Your task to perform on an android device: open a new tab in the chrome app Image 0: 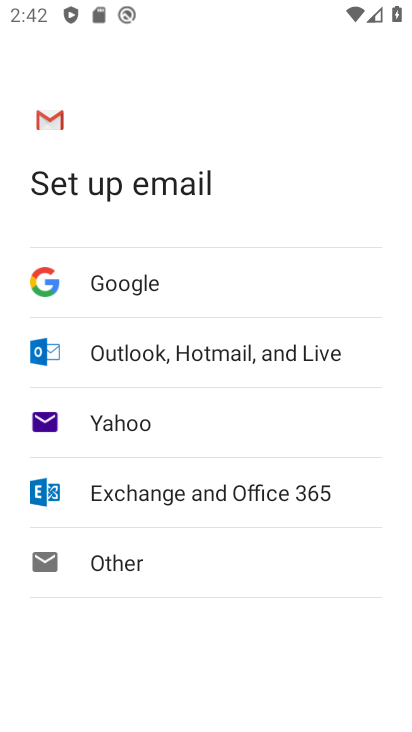
Step 0: press home button
Your task to perform on an android device: open a new tab in the chrome app Image 1: 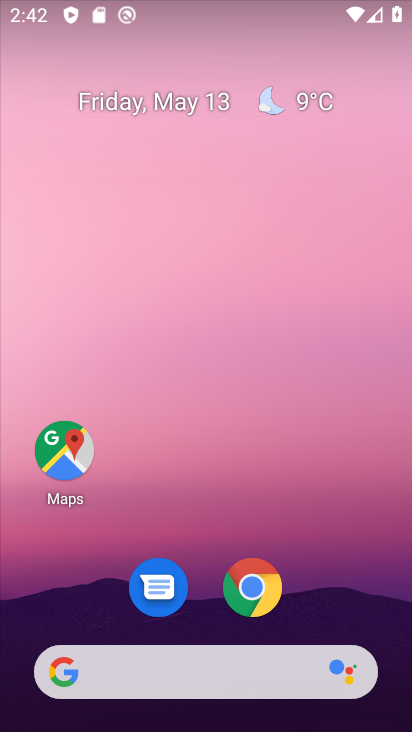
Step 1: click (263, 599)
Your task to perform on an android device: open a new tab in the chrome app Image 2: 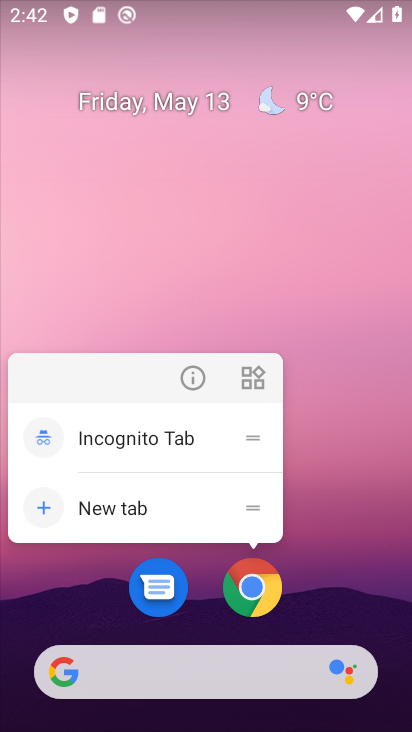
Step 2: click (252, 602)
Your task to perform on an android device: open a new tab in the chrome app Image 3: 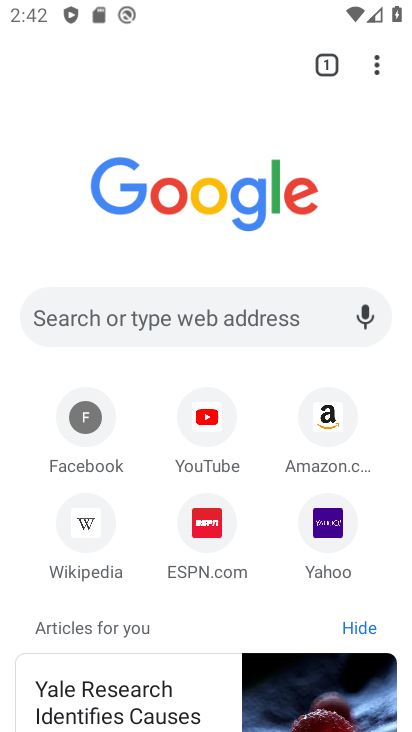
Step 3: task complete